Your task to perform on an android device: Open Google Chrome and click the shortcut for Amazon.com Image 0: 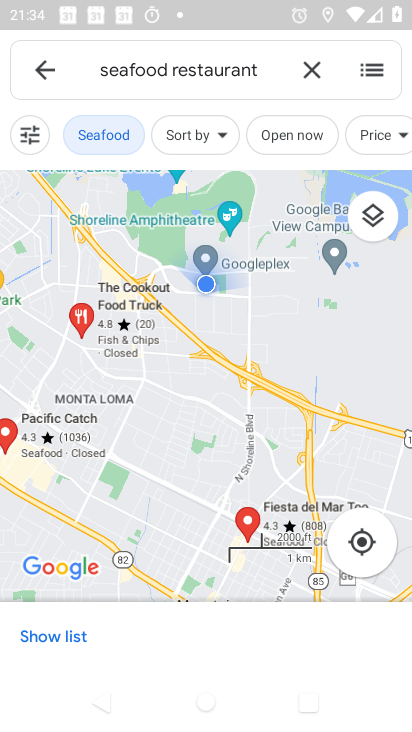
Step 0: press home button
Your task to perform on an android device: Open Google Chrome and click the shortcut for Amazon.com Image 1: 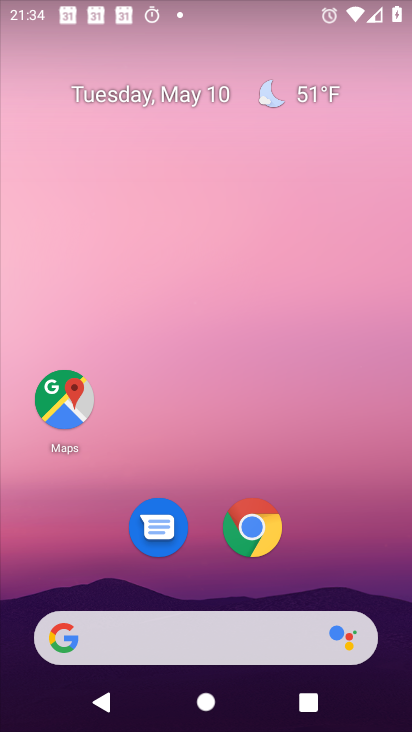
Step 1: click (249, 531)
Your task to perform on an android device: Open Google Chrome and click the shortcut for Amazon.com Image 2: 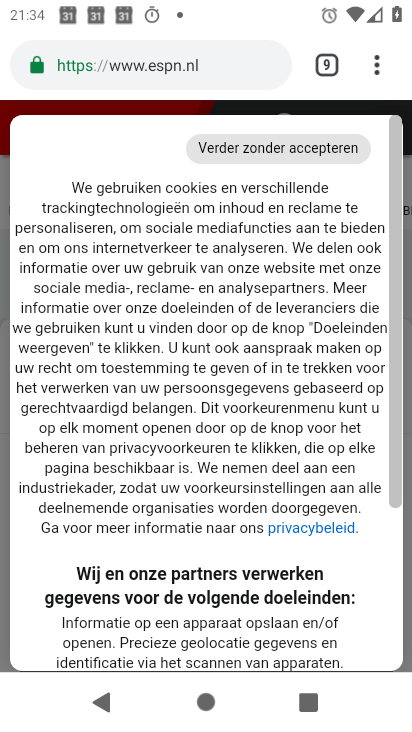
Step 2: click (320, 63)
Your task to perform on an android device: Open Google Chrome and click the shortcut for Amazon.com Image 3: 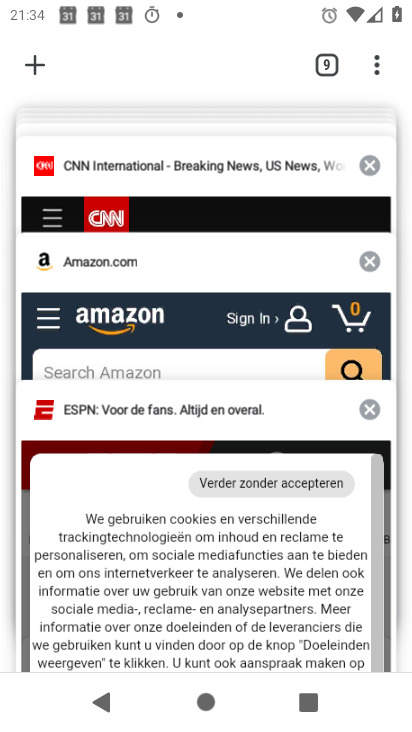
Step 3: click (100, 309)
Your task to perform on an android device: Open Google Chrome and click the shortcut for Amazon.com Image 4: 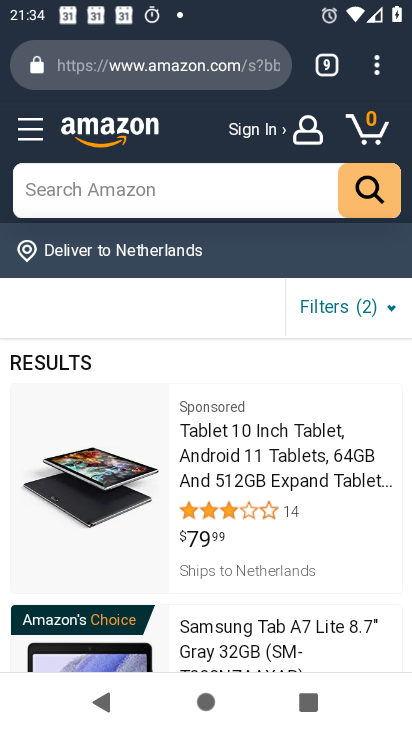
Step 4: task complete